Your task to perform on an android device: turn on improve location accuracy Image 0: 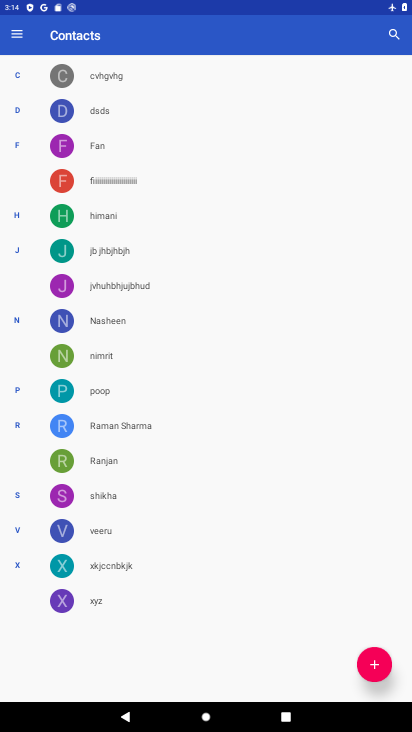
Step 0: press home button
Your task to perform on an android device: turn on improve location accuracy Image 1: 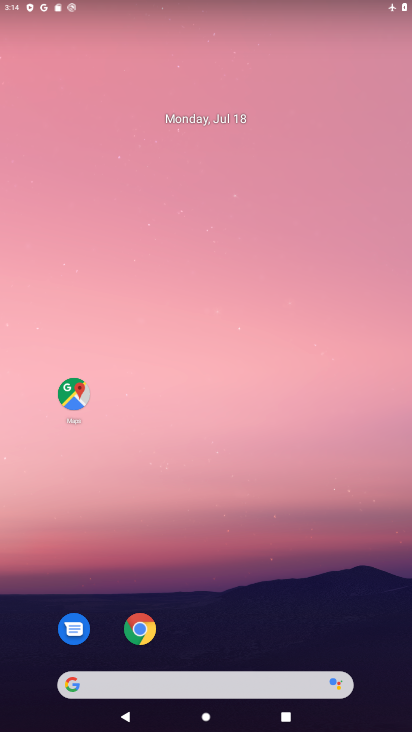
Step 1: drag from (196, 645) to (130, 122)
Your task to perform on an android device: turn on improve location accuracy Image 2: 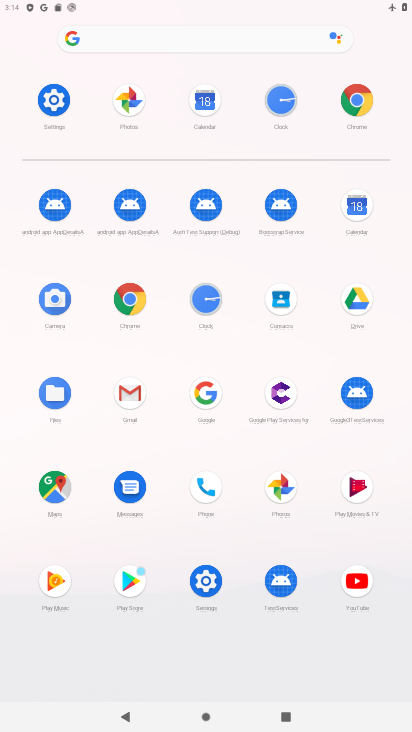
Step 2: click (46, 109)
Your task to perform on an android device: turn on improve location accuracy Image 3: 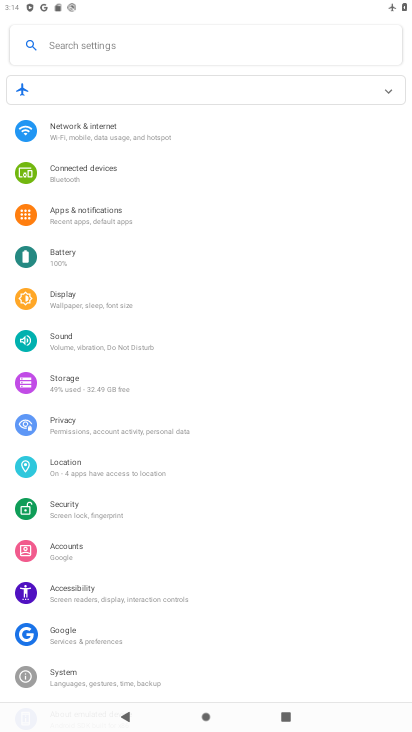
Step 3: click (76, 126)
Your task to perform on an android device: turn on improve location accuracy Image 4: 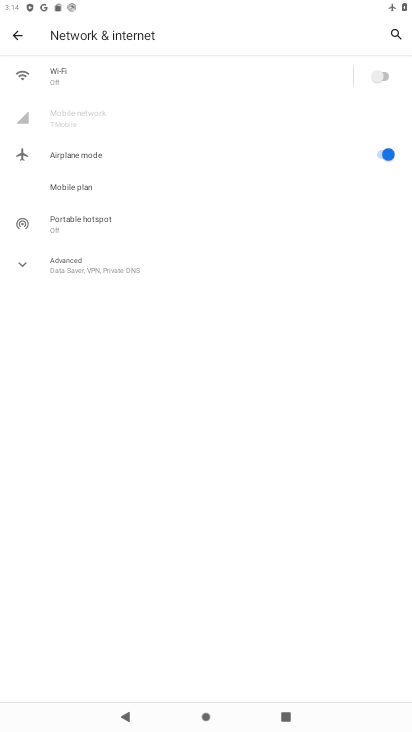
Step 4: click (19, 28)
Your task to perform on an android device: turn on improve location accuracy Image 5: 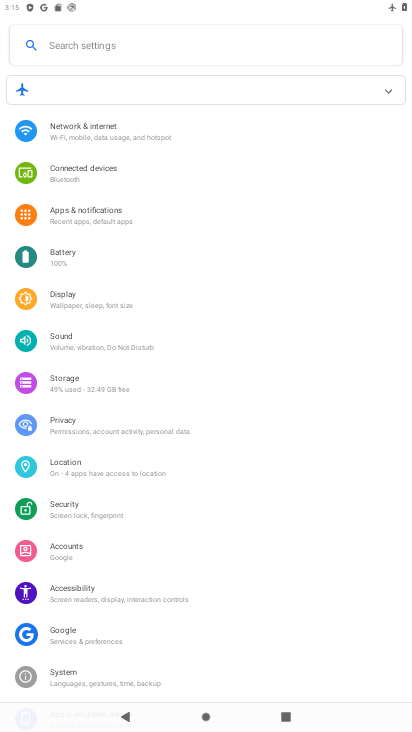
Step 5: click (78, 472)
Your task to perform on an android device: turn on improve location accuracy Image 6: 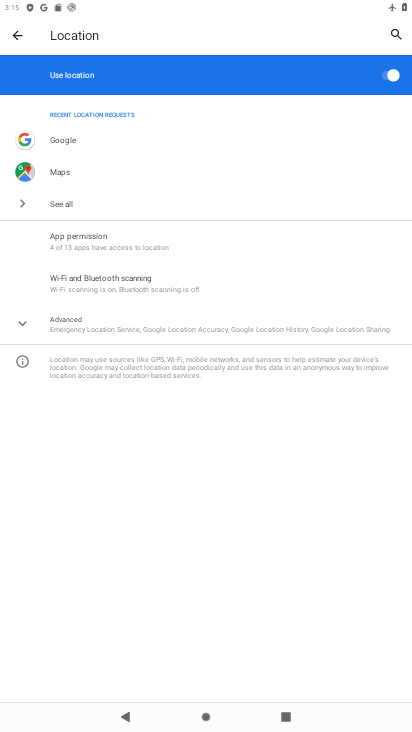
Step 6: click (99, 321)
Your task to perform on an android device: turn on improve location accuracy Image 7: 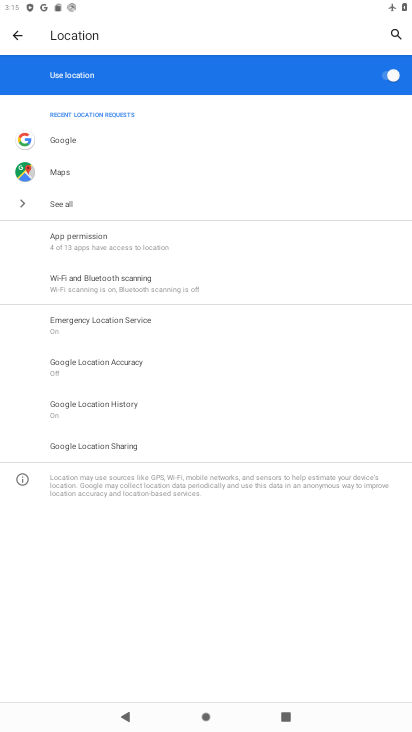
Step 7: click (144, 365)
Your task to perform on an android device: turn on improve location accuracy Image 8: 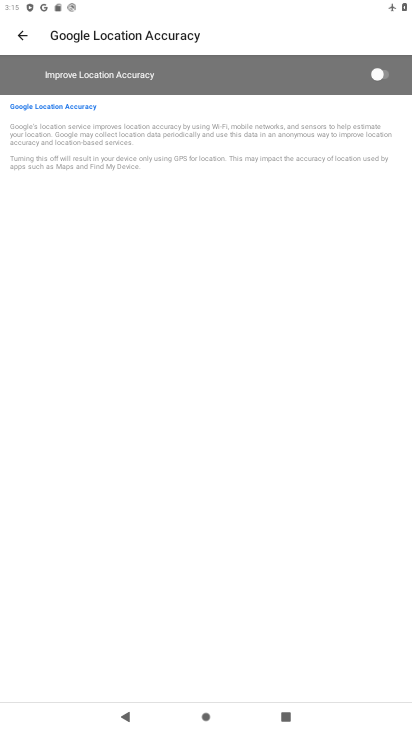
Step 8: click (389, 70)
Your task to perform on an android device: turn on improve location accuracy Image 9: 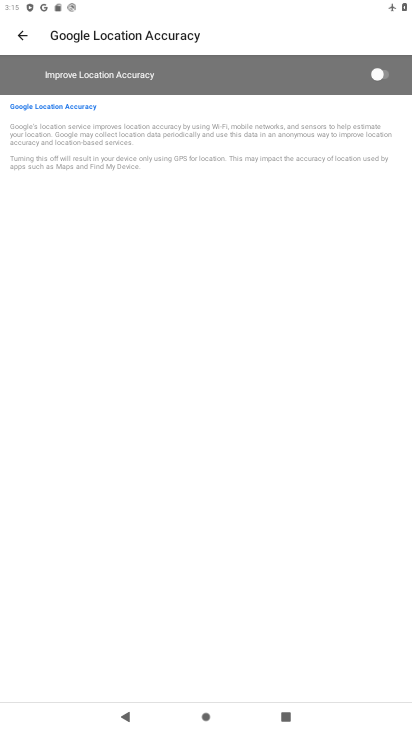
Step 9: task complete